Your task to perform on an android device: Open Wikipedia Image 0: 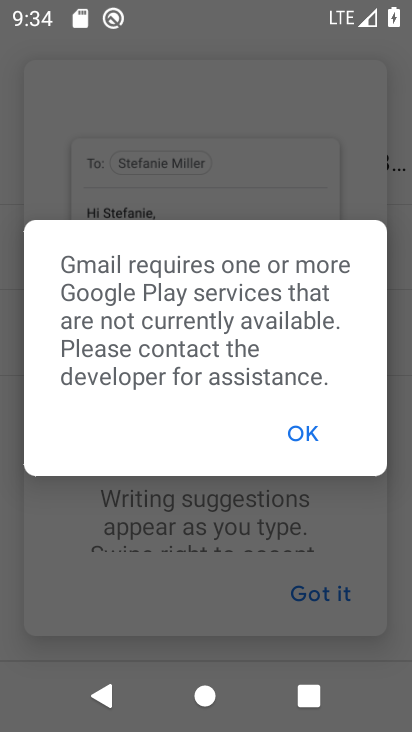
Step 0: press home button
Your task to perform on an android device: Open Wikipedia Image 1: 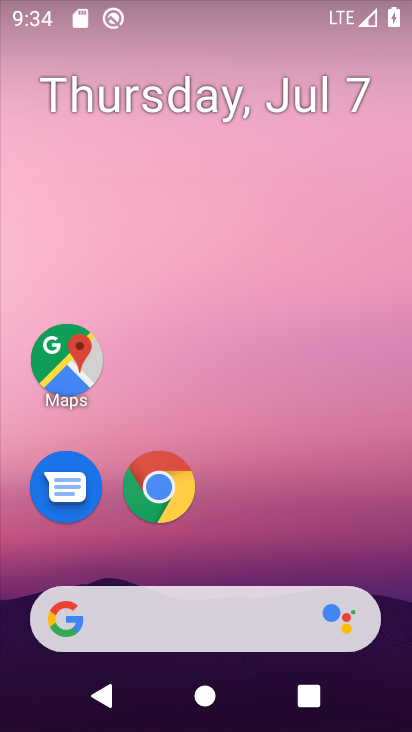
Step 1: drag from (363, 549) to (360, 186)
Your task to perform on an android device: Open Wikipedia Image 2: 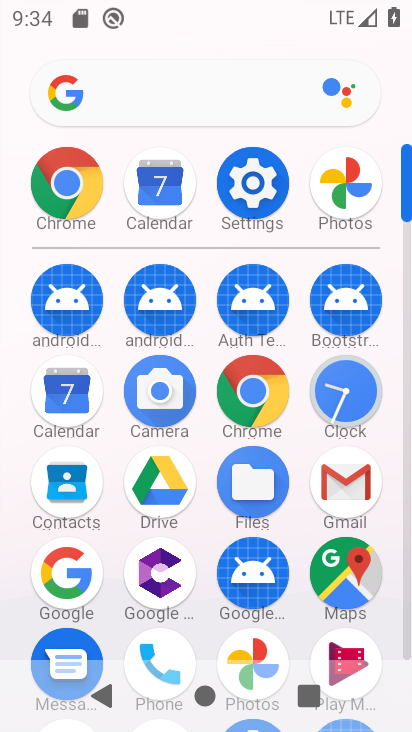
Step 2: click (264, 385)
Your task to perform on an android device: Open Wikipedia Image 3: 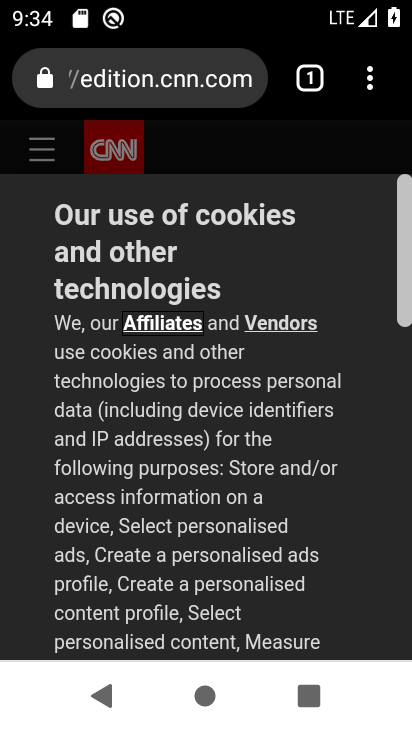
Step 3: click (186, 93)
Your task to perform on an android device: Open Wikipedia Image 4: 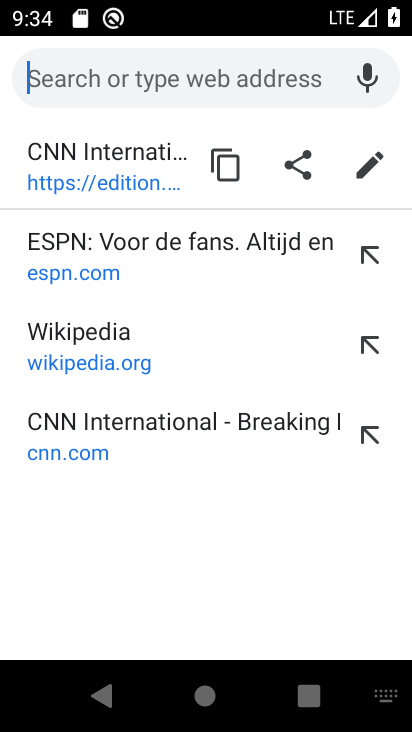
Step 4: type "wikipedia"
Your task to perform on an android device: Open Wikipedia Image 5: 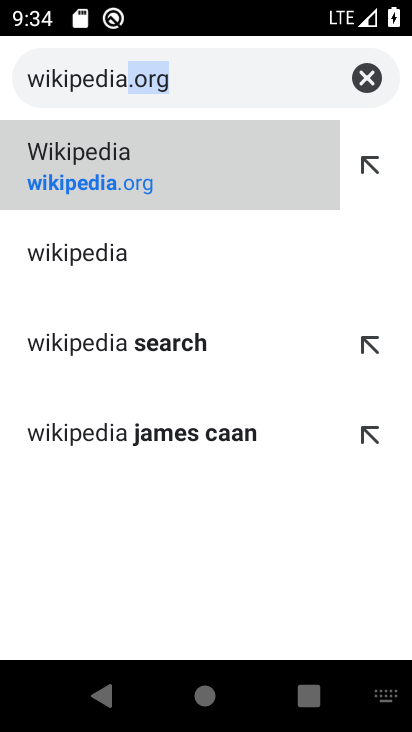
Step 5: click (197, 147)
Your task to perform on an android device: Open Wikipedia Image 6: 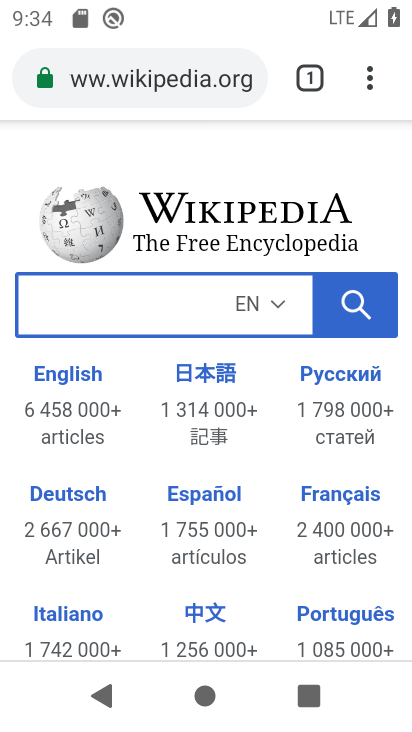
Step 6: task complete